Your task to perform on an android device: Go to sound settings Image 0: 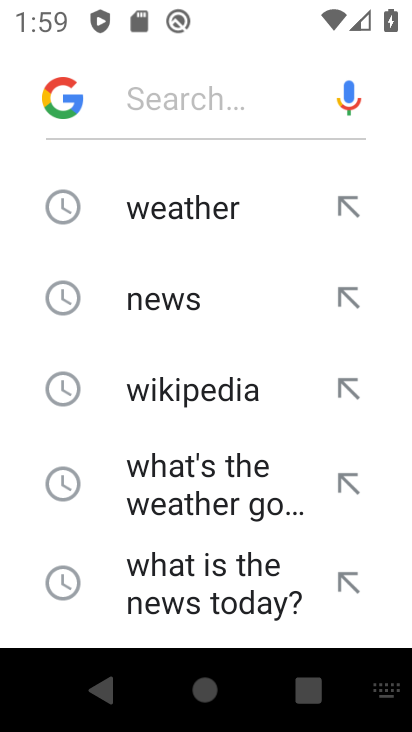
Step 0: press home button
Your task to perform on an android device: Go to sound settings Image 1: 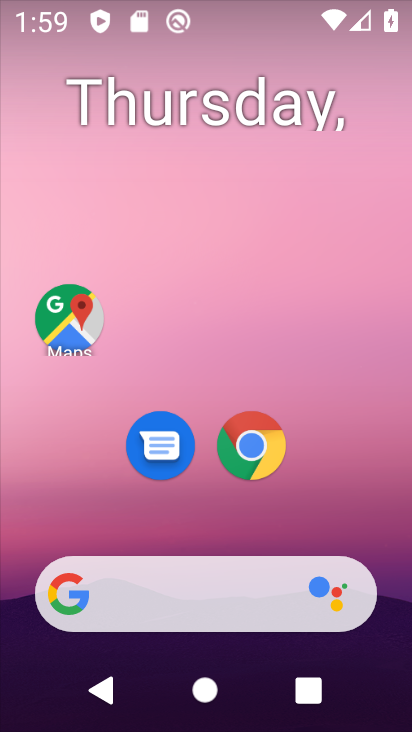
Step 1: drag from (49, 522) to (287, 88)
Your task to perform on an android device: Go to sound settings Image 2: 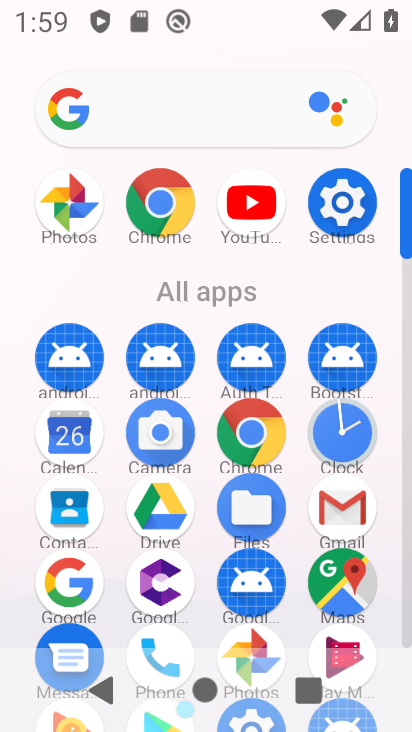
Step 2: click (331, 191)
Your task to perform on an android device: Go to sound settings Image 3: 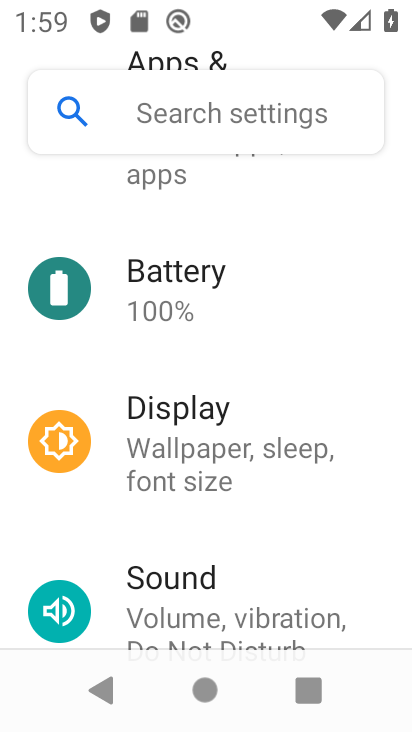
Step 3: click (188, 586)
Your task to perform on an android device: Go to sound settings Image 4: 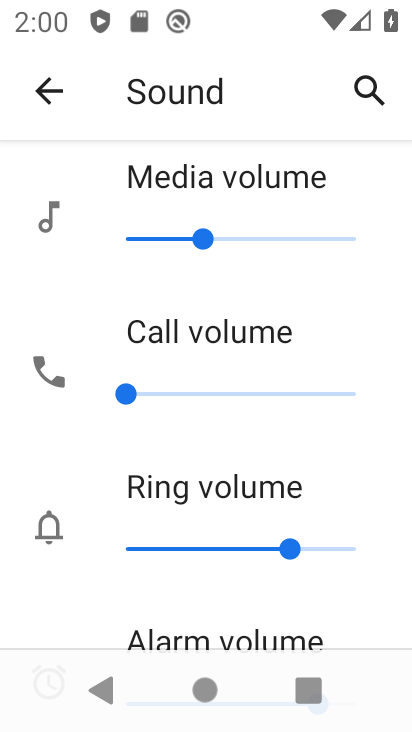
Step 4: task complete